Your task to perform on an android device: change text size in settings app Image 0: 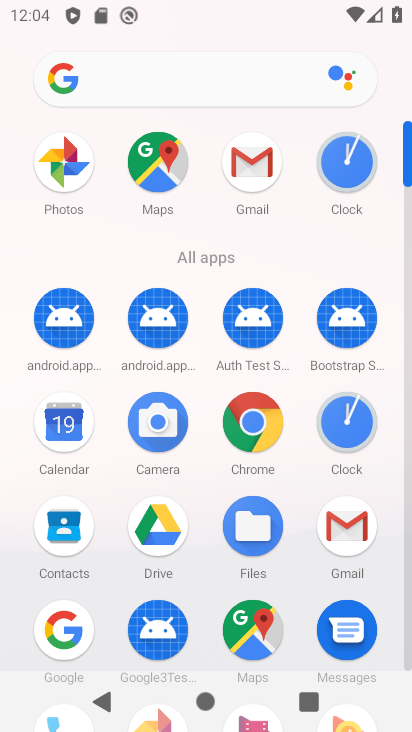
Step 0: press home button
Your task to perform on an android device: change text size in settings app Image 1: 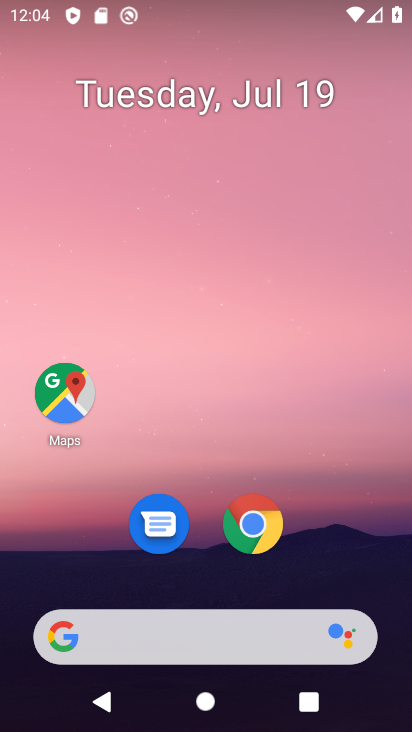
Step 1: drag from (196, 624) to (295, 36)
Your task to perform on an android device: change text size in settings app Image 2: 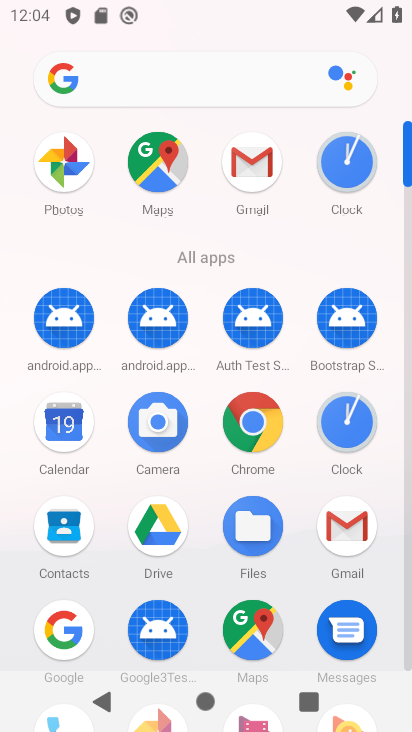
Step 2: drag from (220, 489) to (338, 130)
Your task to perform on an android device: change text size in settings app Image 3: 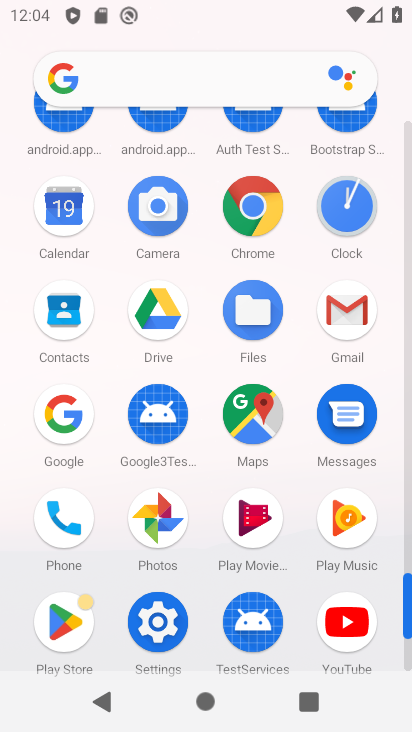
Step 3: click (162, 622)
Your task to perform on an android device: change text size in settings app Image 4: 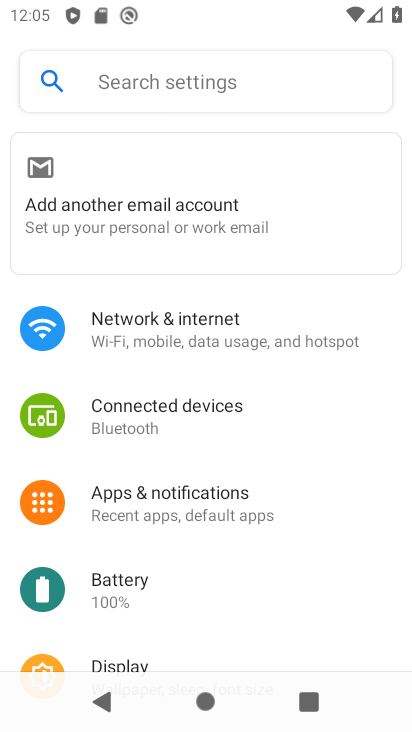
Step 4: drag from (210, 619) to (301, 88)
Your task to perform on an android device: change text size in settings app Image 5: 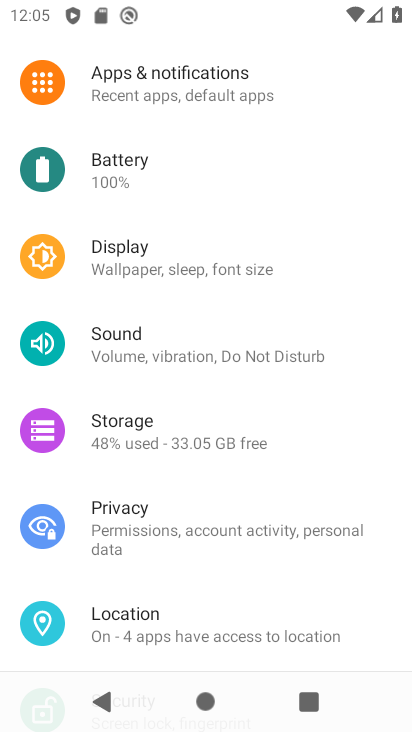
Step 5: click (163, 262)
Your task to perform on an android device: change text size in settings app Image 6: 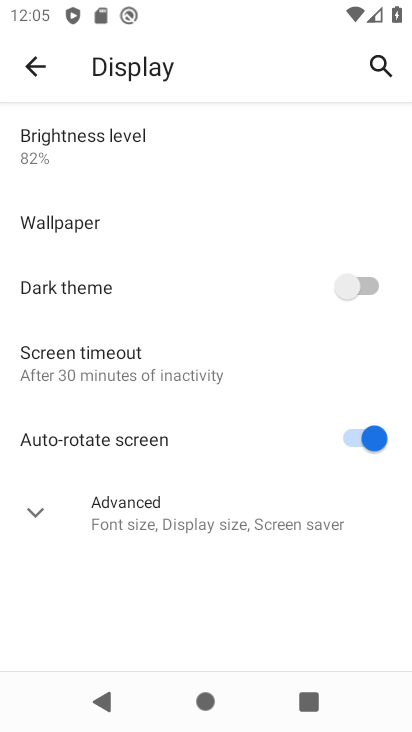
Step 6: click (96, 503)
Your task to perform on an android device: change text size in settings app Image 7: 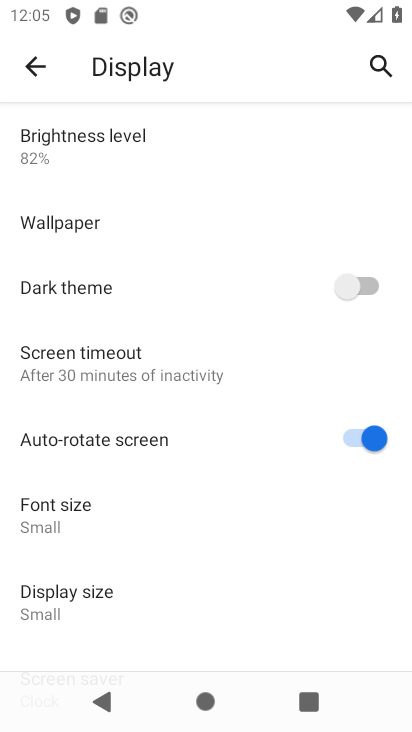
Step 7: click (75, 505)
Your task to perform on an android device: change text size in settings app Image 8: 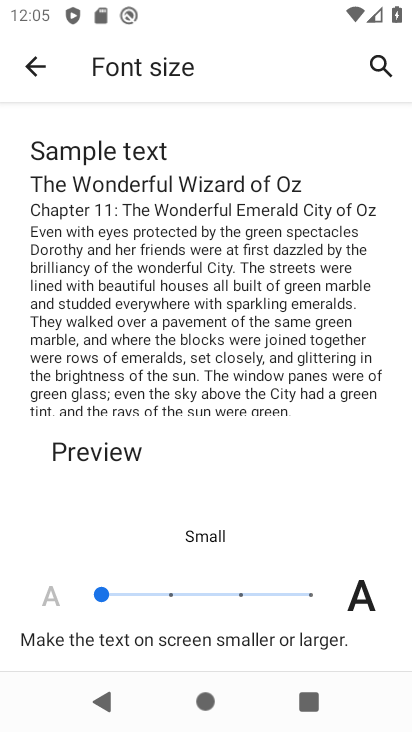
Step 8: click (170, 593)
Your task to perform on an android device: change text size in settings app Image 9: 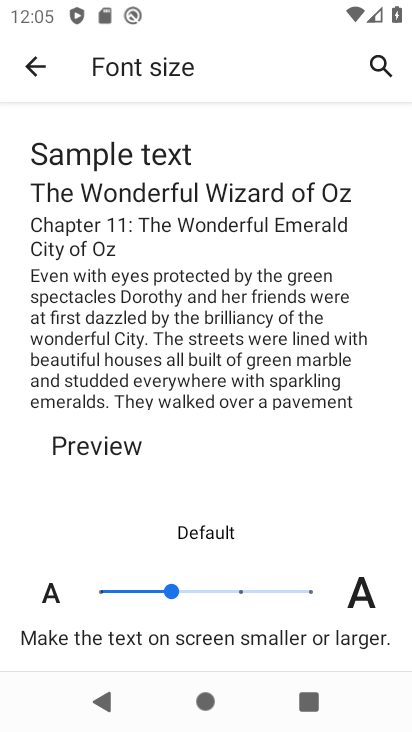
Step 9: task complete